Your task to perform on an android device: Go to display settings Image 0: 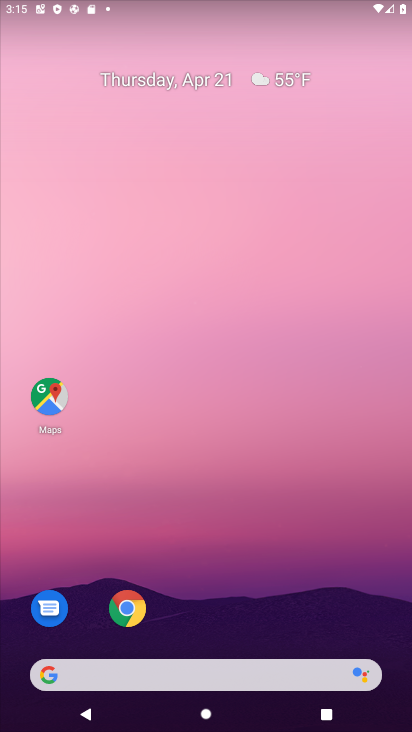
Step 0: drag from (266, 584) to (203, 160)
Your task to perform on an android device: Go to display settings Image 1: 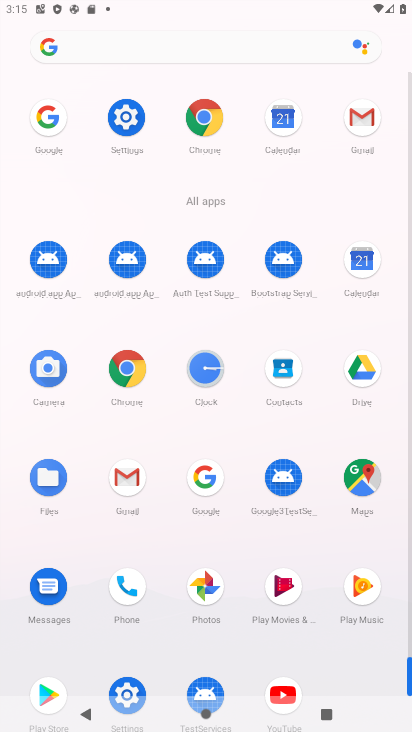
Step 1: click (124, 135)
Your task to perform on an android device: Go to display settings Image 2: 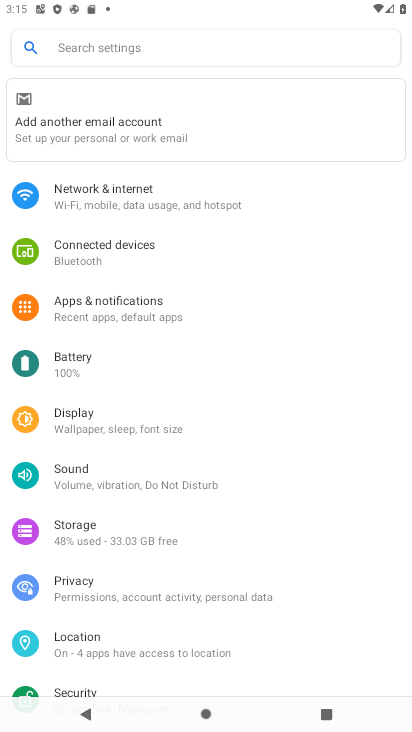
Step 2: click (43, 425)
Your task to perform on an android device: Go to display settings Image 3: 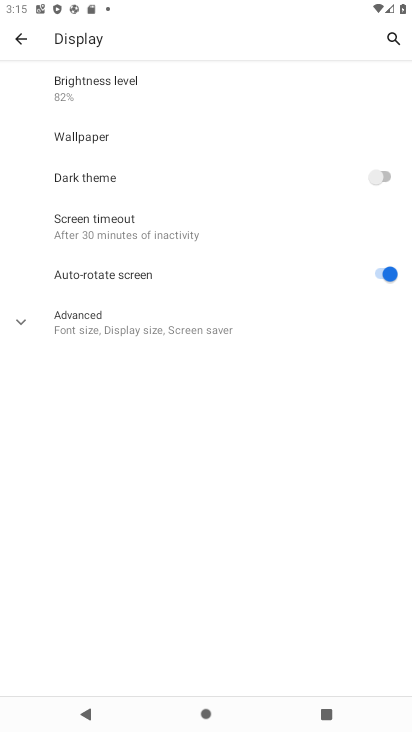
Step 3: task complete